Your task to perform on an android device: Search for Mexican restaurants on Maps Image 0: 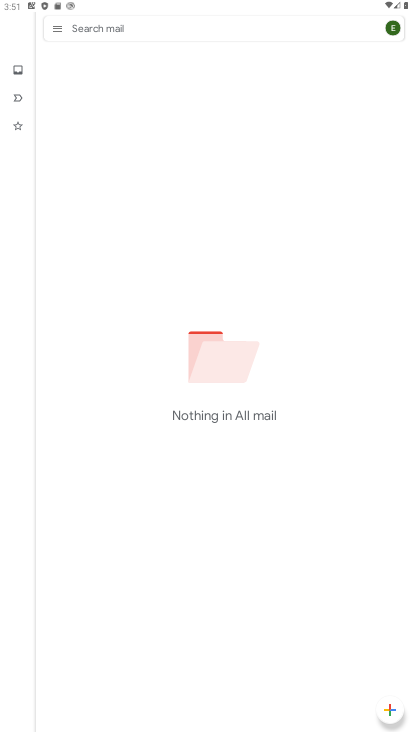
Step 0: press home button
Your task to perform on an android device: Search for Mexican restaurants on Maps Image 1: 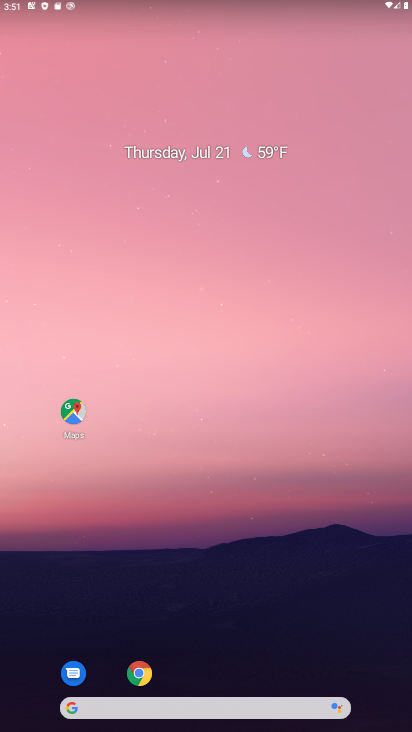
Step 1: click (74, 413)
Your task to perform on an android device: Search for Mexican restaurants on Maps Image 2: 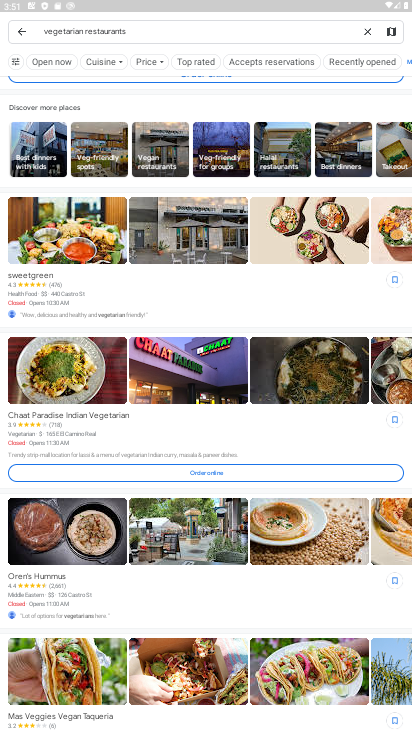
Step 2: click (368, 27)
Your task to perform on an android device: Search for Mexican restaurants on Maps Image 3: 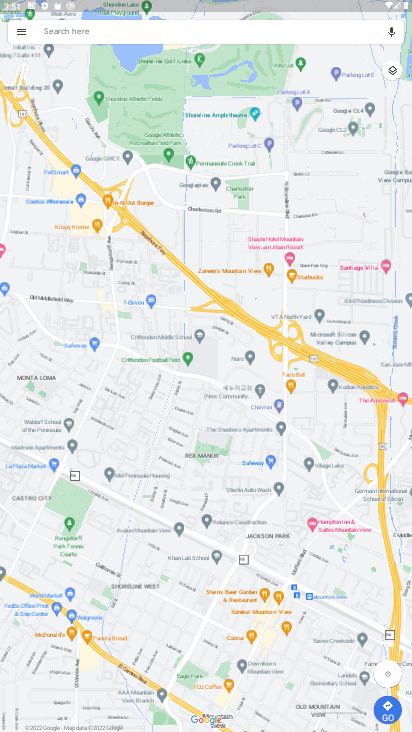
Step 3: click (60, 32)
Your task to perform on an android device: Search for Mexican restaurants on Maps Image 4: 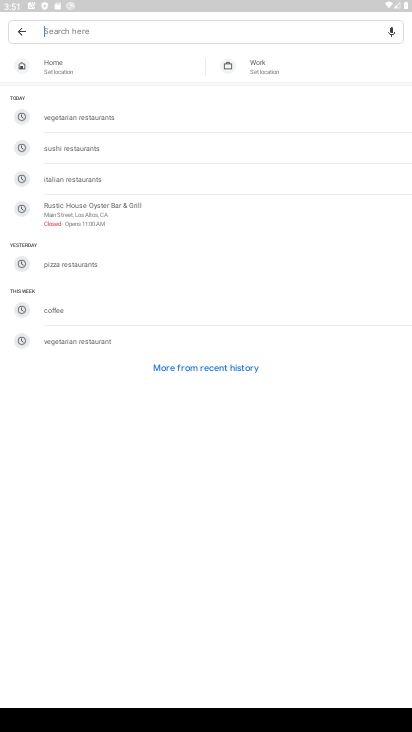
Step 4: type "mexican restaurants"
Your task to perform on an android device: Search for Mexican restaurants on Maps Image 5: 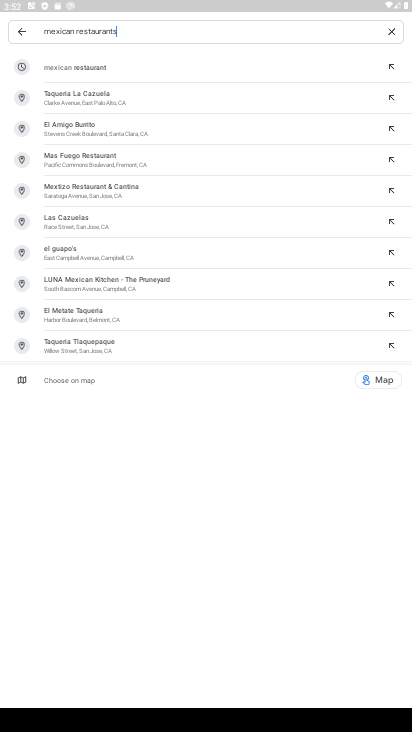
Step 5: click (71, 63)
Your task to perform on an android device: Search for Mexican restaurants on Maps Image 6: 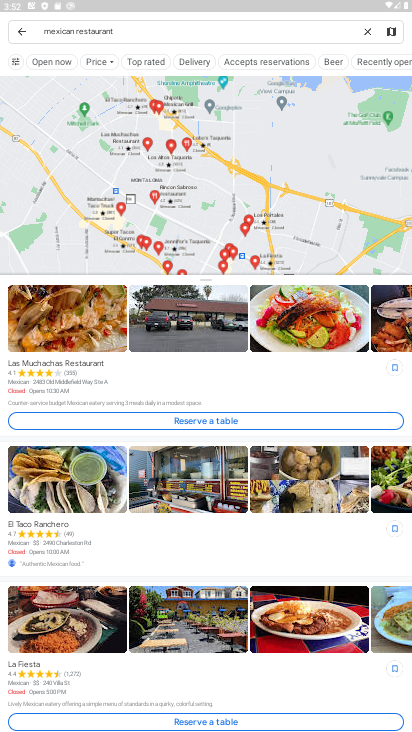
Step 6: task complete